Your task to perform on an android device: Search for sushi restaurants on Maps Image 0: 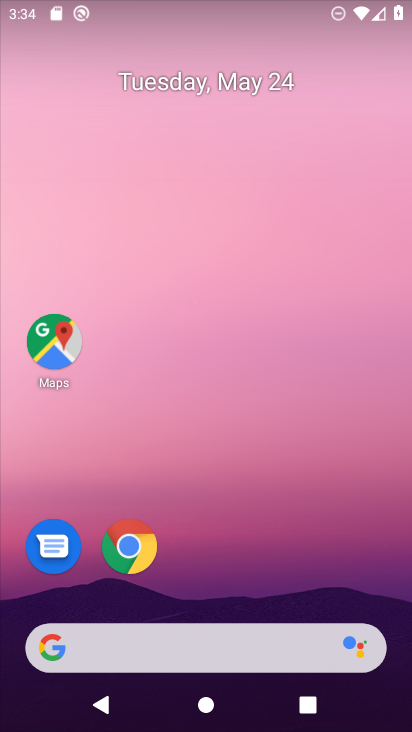
Step 0: drag from (262, 562) to (229, 45)
Your task to perform on an android device: Search for sushi restaurants on Maps Image 1: 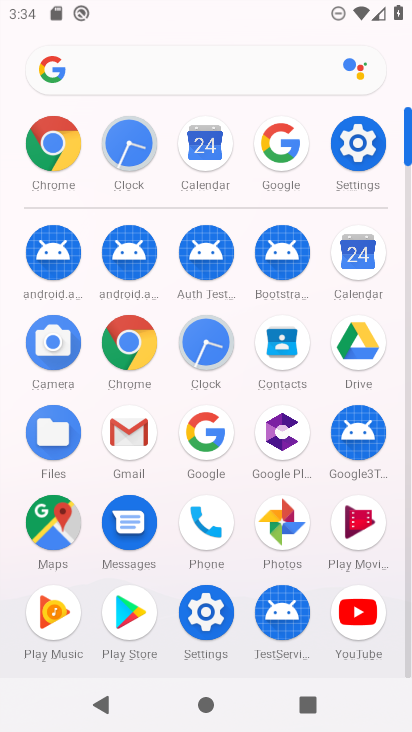
Step 1: click (52, 524)
Your task to perform on an android device: Search for sushi restaurants on Maps Image 2: 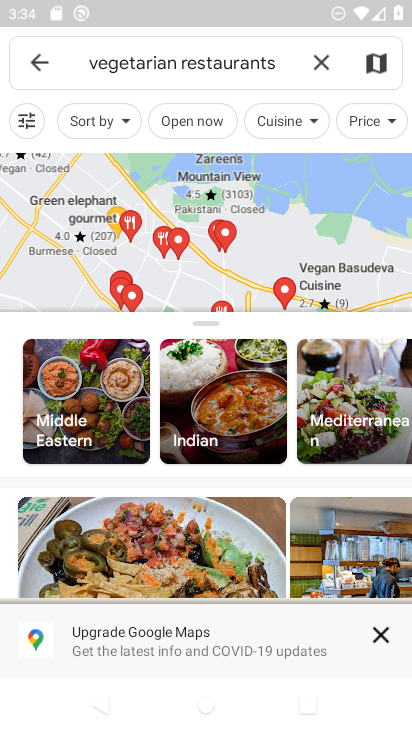
Step 2: click (329, 64)
Your task to perform on an android device: Search for sushi restaurants on Maps Image 3: 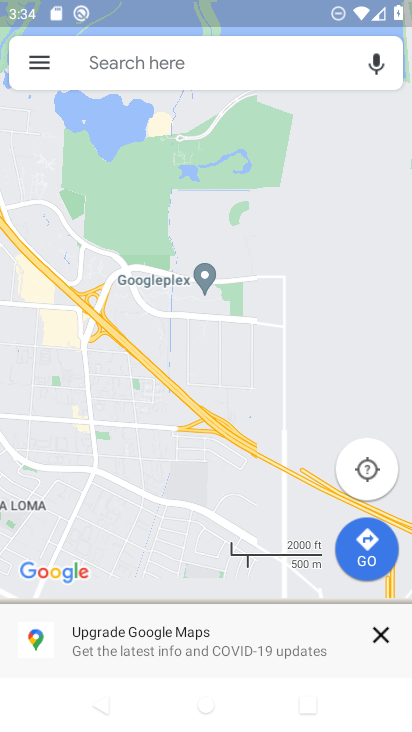
Step 3: click (152, 58)
Your task to perform on an android device: Search for sushi restaurants on Maps Image 4: 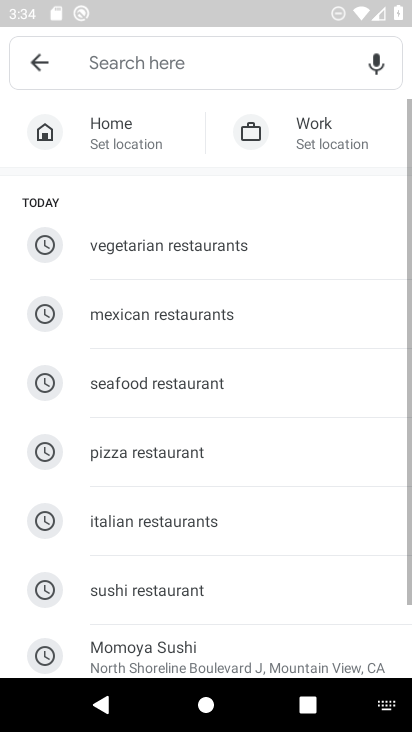
Step 4: click (163, 591)
Your task to perform on an android device: Search for sushi restaurants on Maps Image 5: 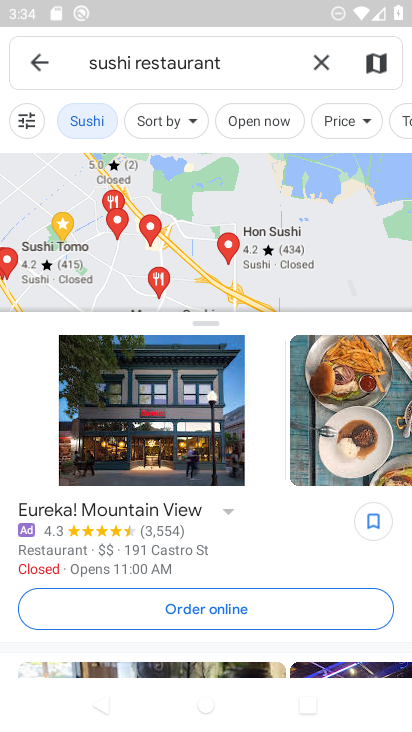
Step 5: task complete